Your task to perform on an android device: open app "Reddit" (install if not already installed), go to login, and select forgot password Image 0: 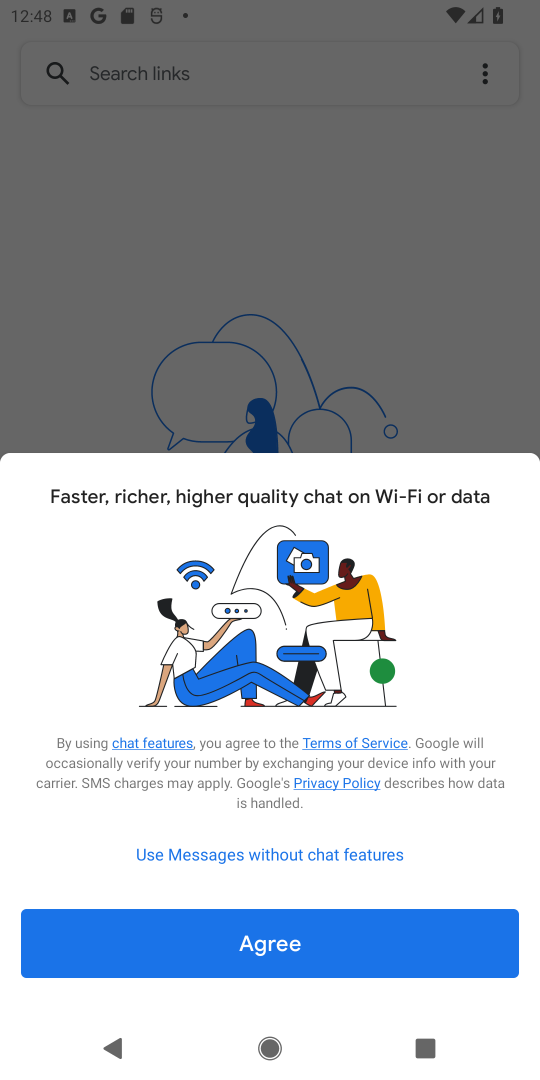
Step 0: press home button
Your task to perform on an android device: open app "Reddit" (install if not already installed), go to login, and select forgot password Image 1: 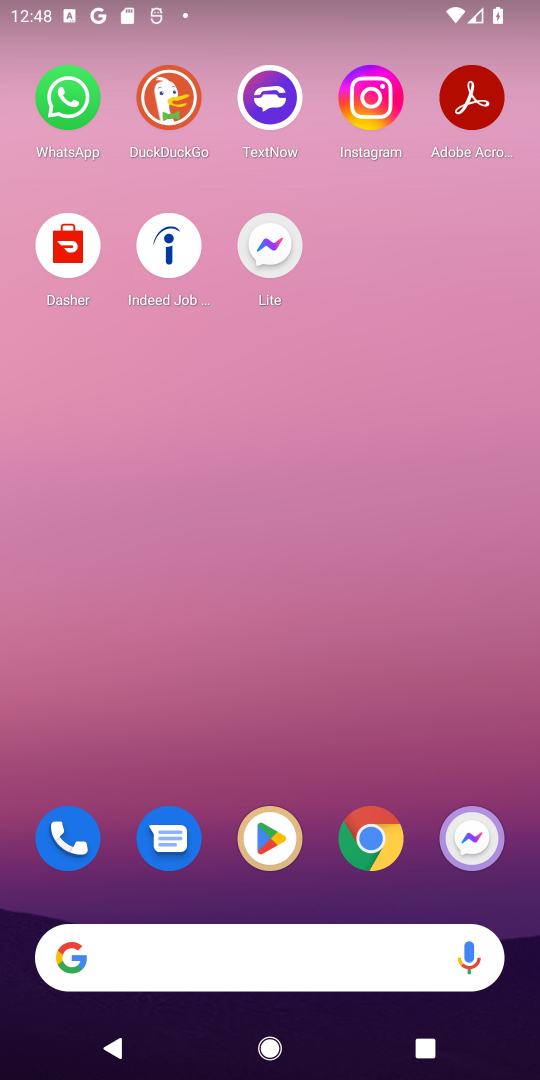
Step 1: click (288, 828)
Your task to perform on an android device: open app "Reddit" (install if not already installed), go to login, and select forgot password Image 2: 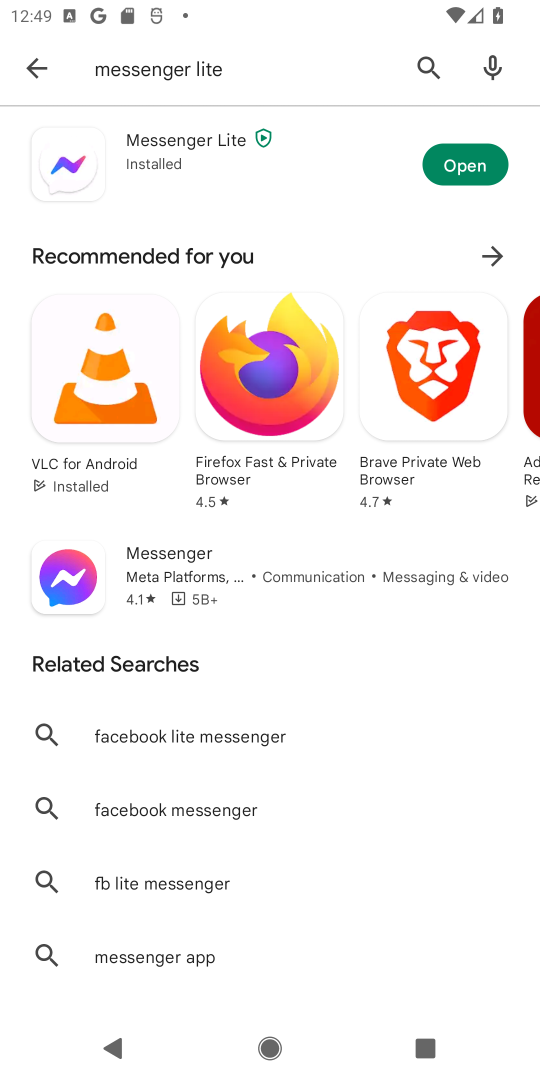
Step 2: click (420, 65)
Your task to perform on an android device: open app "Reddit" (install if not already installed), go to login, and select forgot password Image 3: 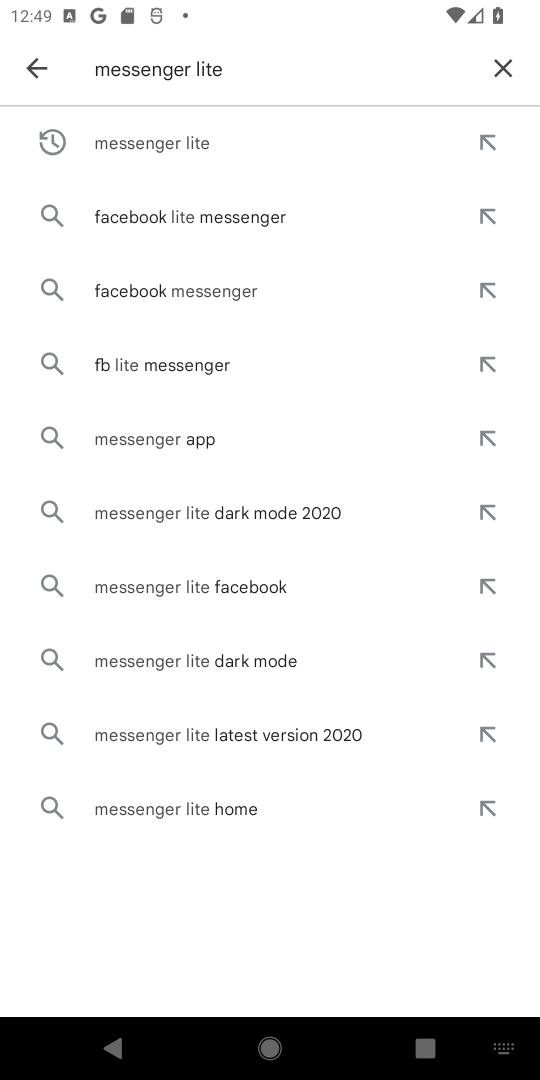
Step 3: click (513, 61)
Your task to perform on an android device: open app "Reddit" (install if not already installed), go to login, and select forgot password Image 4: 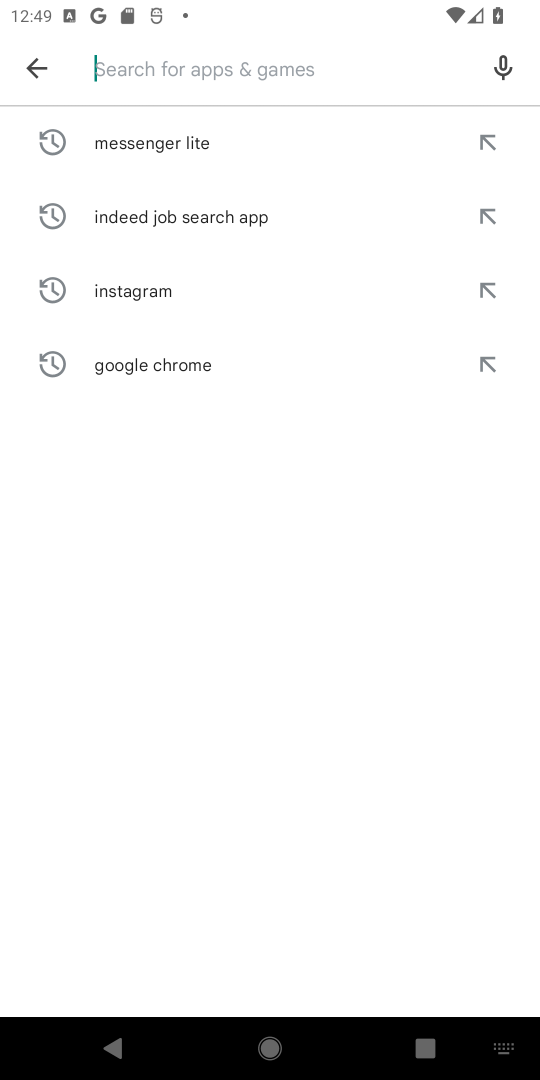
Step 4: type "Reddit"
Your task to perform on an android device: open app "Reddit" (install if not already installed), go to login, and select forgot password Image 5: 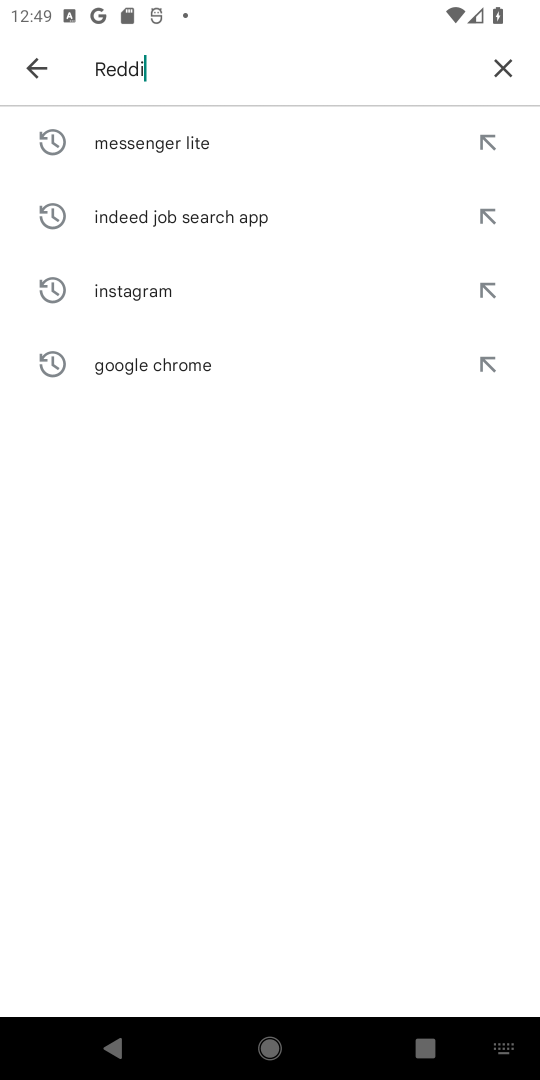
Step 5: type ""
Your task to perform on an android device: open app "Reddit" (install if not already installed), go to login, and select forgot password Image 6: 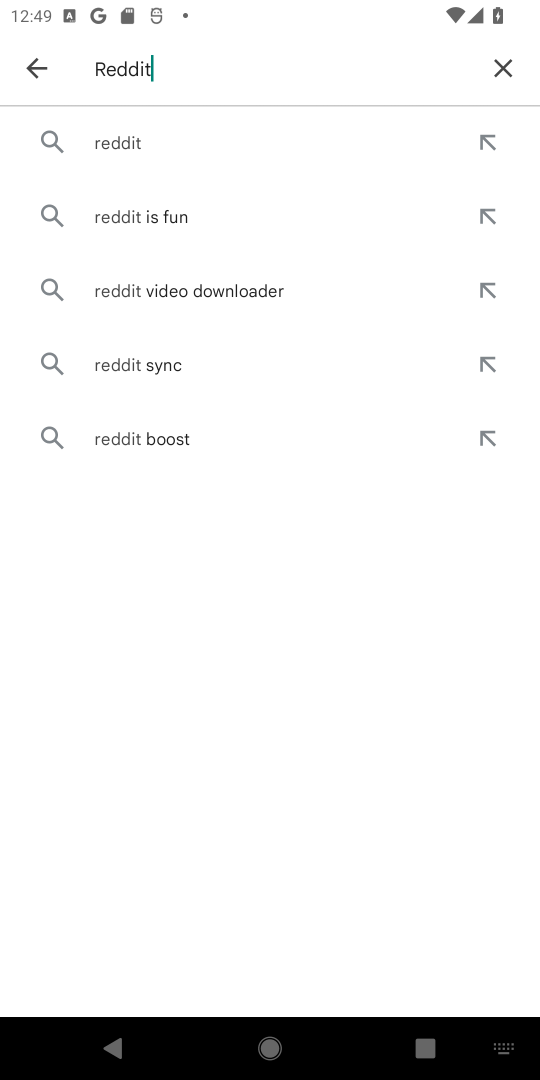
Step 6: click (192, 148)
Your task to perform on an android device: open app "Reddit" (install if not already installed), go to login, and select forgot password Image 7: 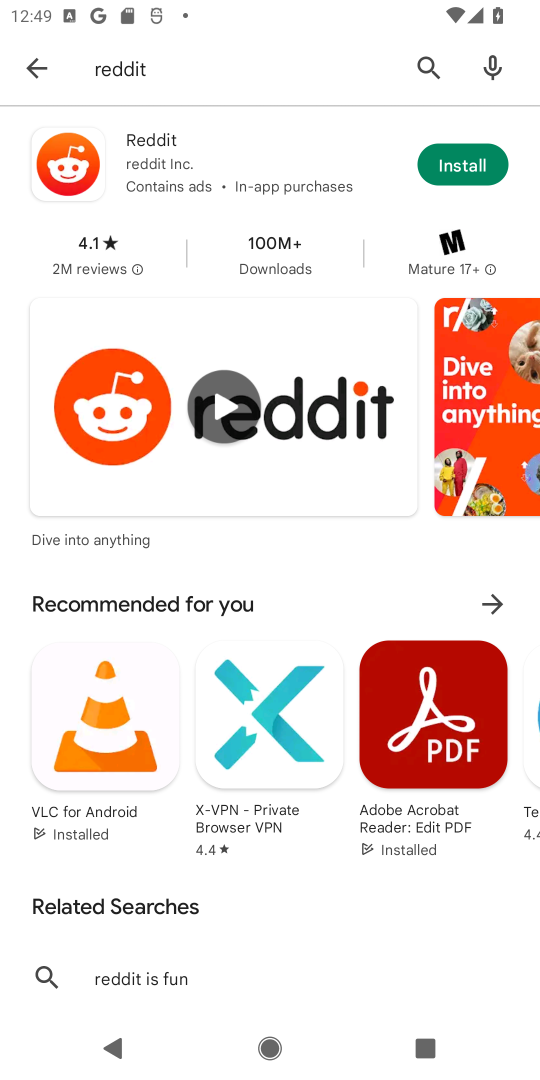
Step 7: click (478, 160)
Your task to perform on an android device: open app "Reddit" (install if not already installed), go to login, and select forgot password Image 8: 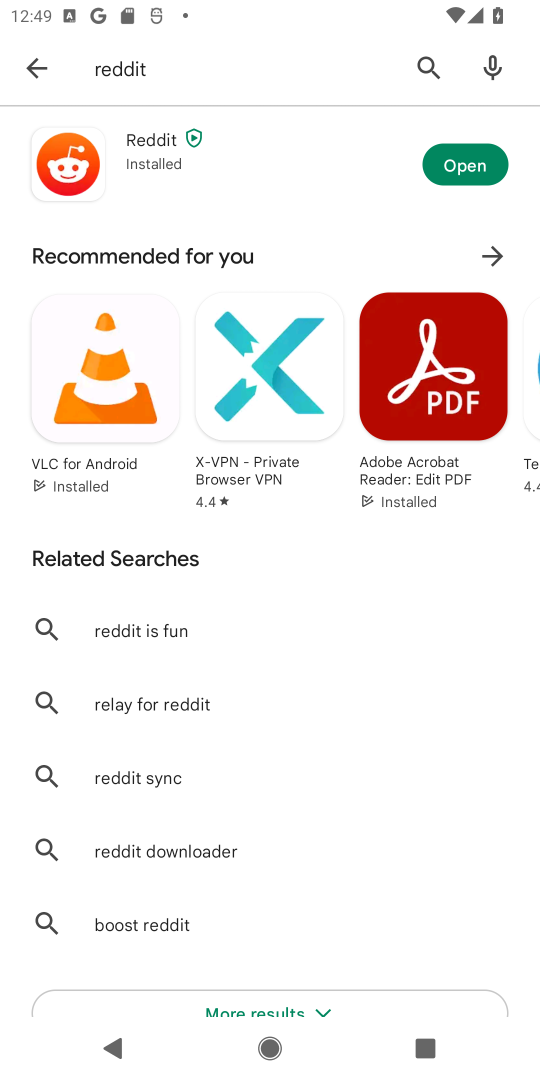
Step 8: click (463, 166)
Your task to perform on an android device: open app "Reddit" (install if not already installed), go to login, and select forgot password Image 9: 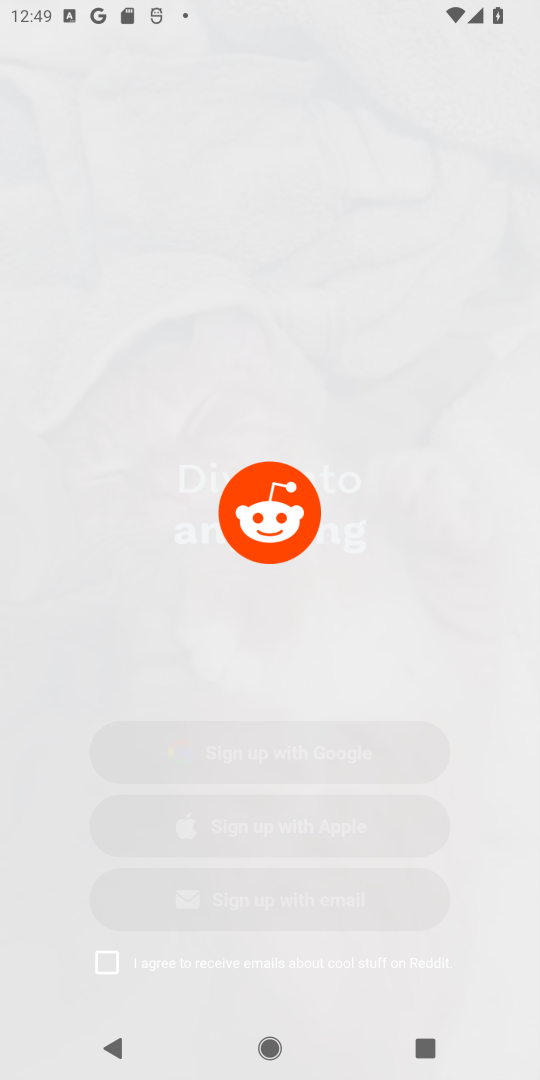
Step 9: task complete